Your task to perform on an android device: delete location history Image 0: 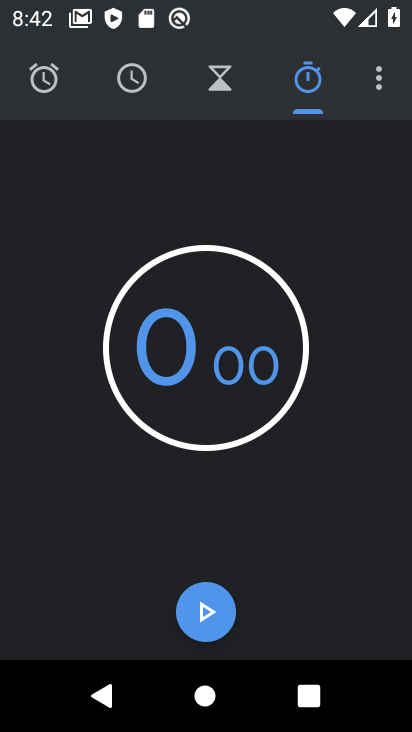
Step 0: press home button
Your task to perform on an android device: delete location history Image 1: 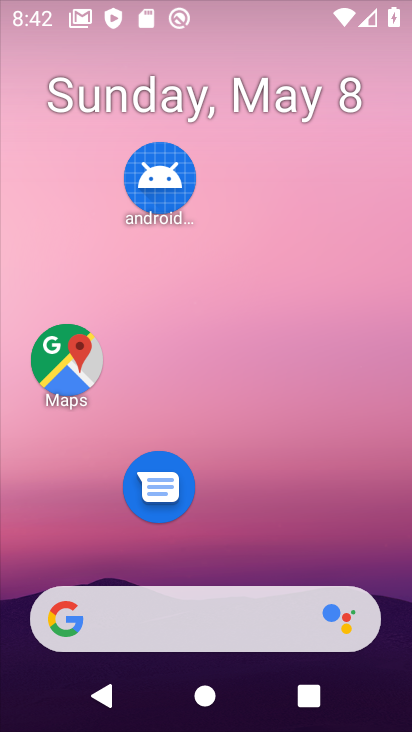
Step 1: drag from (342, 532) to (336, 75)
Your task to perform on an android device: delete location history Image 2: 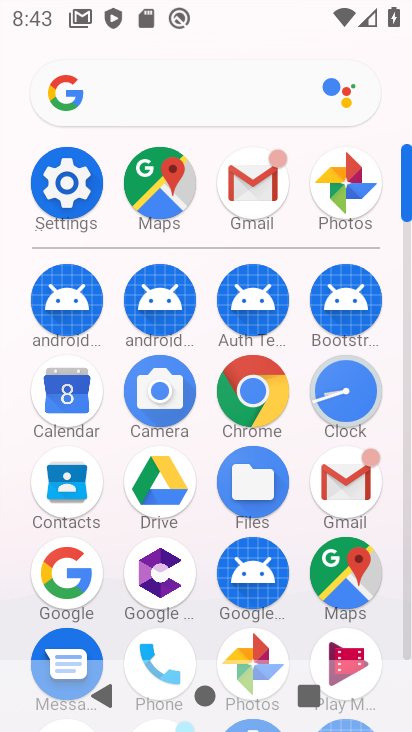
Step 2: click (79, 197)
Your task to perform on an android device: delete location history Image 3: 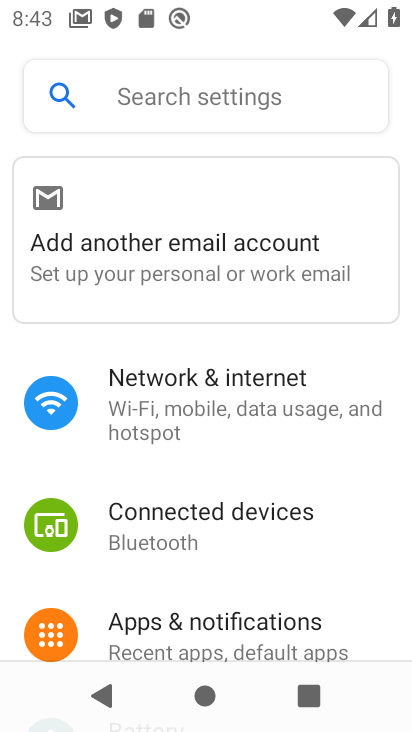
Step 3: drag from (174, 653) to (220, 436)
Your task to perform on an android device: delete location history Image 4: 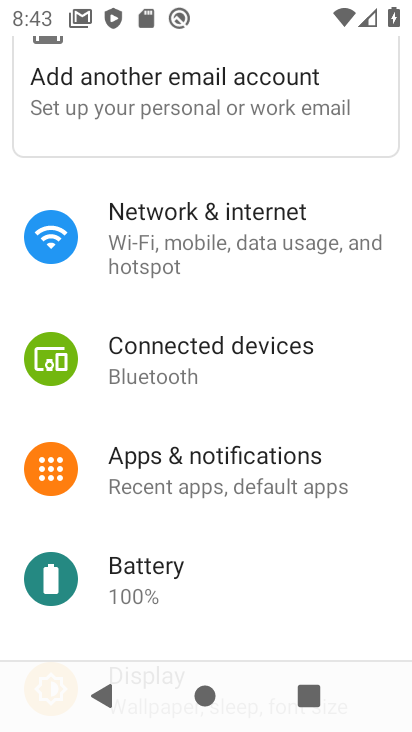
Step 4: drag from (199, 634) to (244, 249)
Your task to perform on an android device: delete location history Image 5: 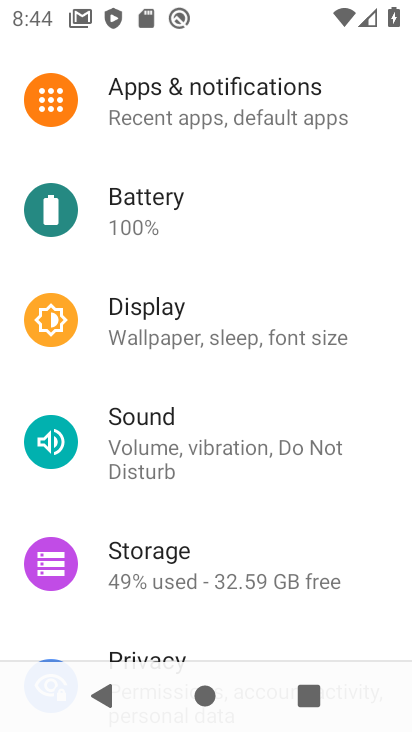
Step 5: drag from (306, 588) to (324, 276)
Your task to perform on an android device: delete location history Image 6: 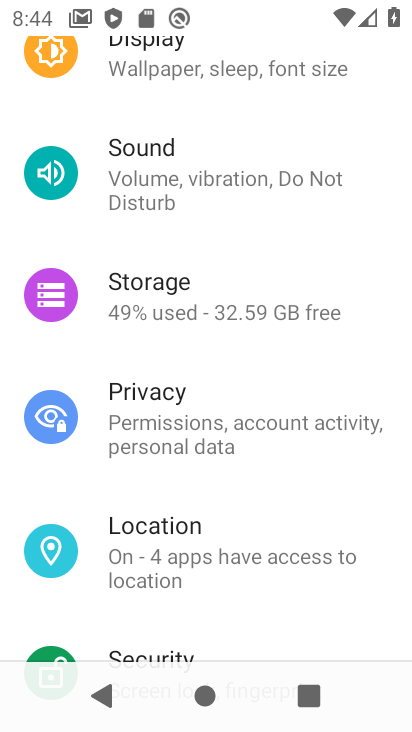
Step 6: click (227, 538)
Your task to perform on an android device: delete location history Image 7: 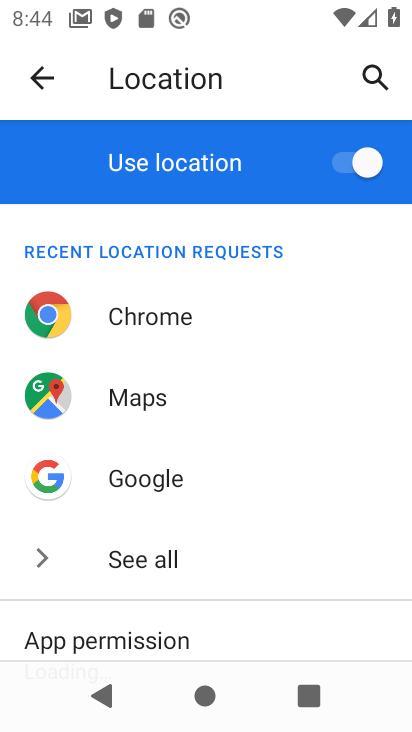
Step 7: drag from (227, 621) to (276, 251)
Your task to perform on an android device: delete location history Image 8: 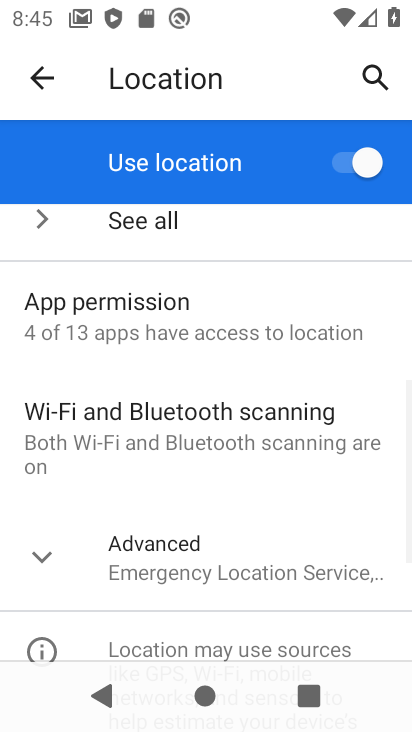
Step 8: click (218, 553)
Your task to perform on an android device: delete location history Image 9: 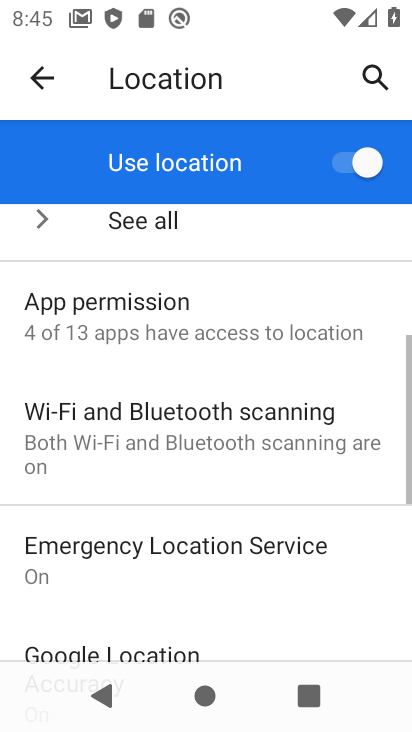
Step 9: drag from (242, 572) to (257, 304)
Your task to perform on an android device: delete location history Image 10: 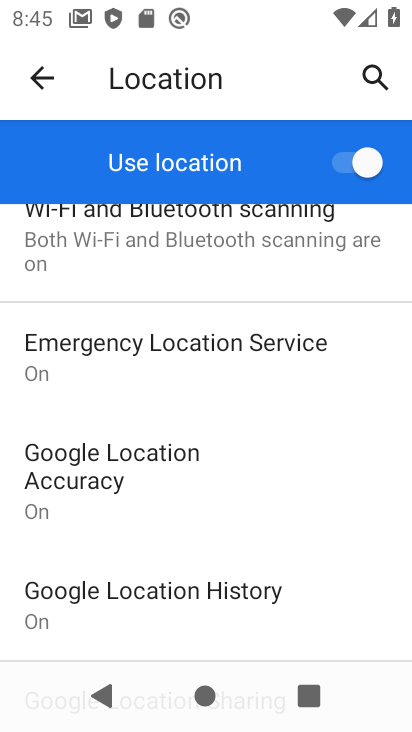
Step 10: click (178, 627)
Your task to perform on an android device: delete location history Image 11: 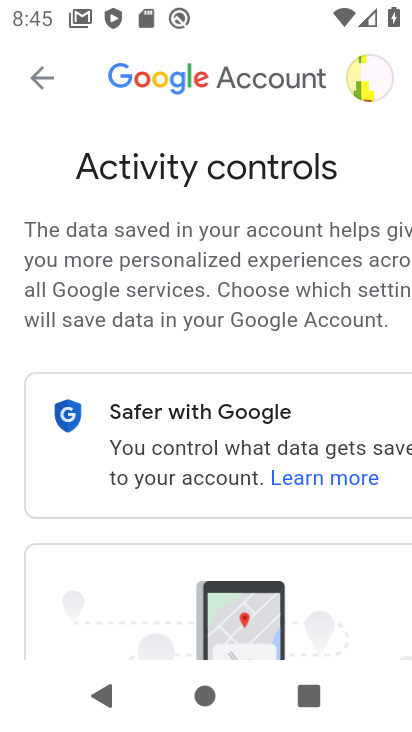
Step 11: drag from (236, 502) to (309, 173)
Your task to perform on an android device: delete location history Image 12: 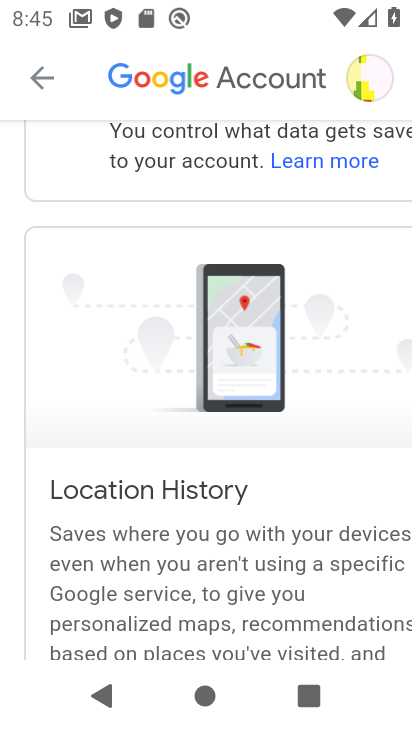
Step 12: drag from (263, 583) to (272, 355)
Your task to perform on an android device: delete location history Image 13: 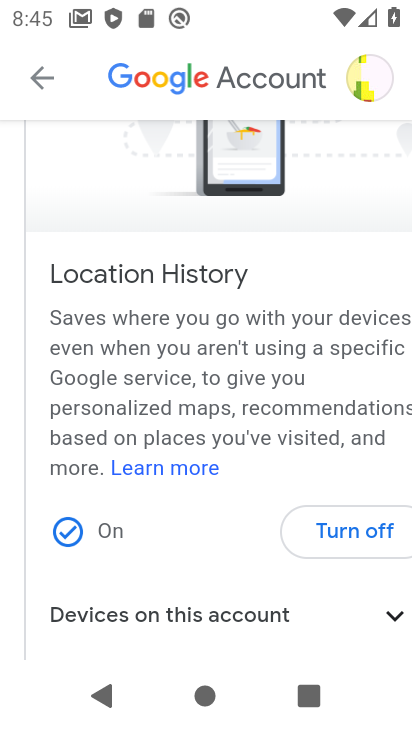
Step 13: drag from (145, 625) to (181, 400)
Your task to perform on an android device: delete location history Image 14: 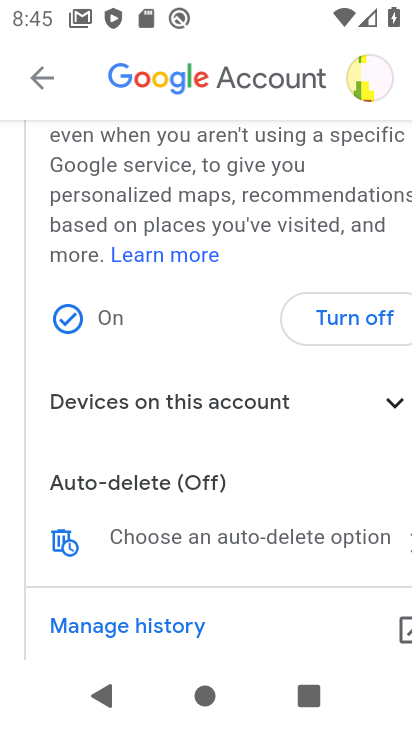
Step 14: click (382, 410)
Your task to perform on an android device: delete location history Image 15: 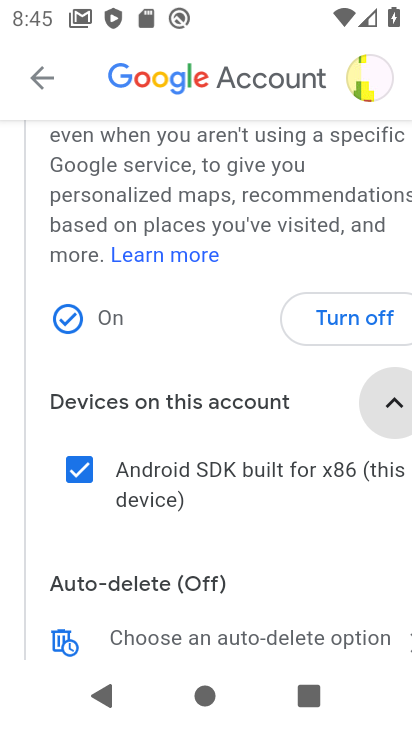
Step 15: click (184, 580)
Your task to perform on an android device: delete location history Image 16: 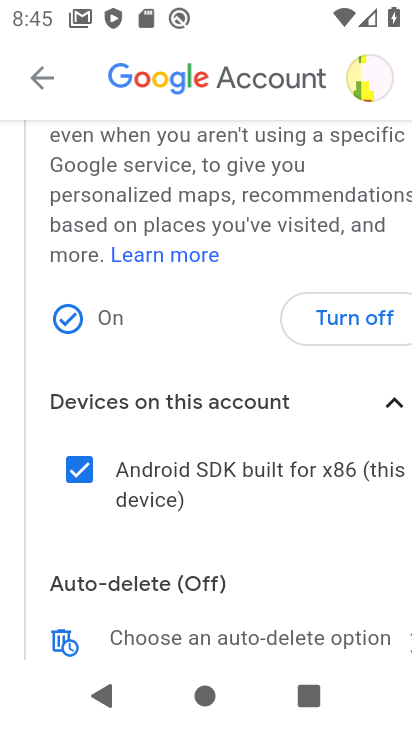
Step 16: click (228, 637)
Your task to perform on an android device: delete location history Image 17: 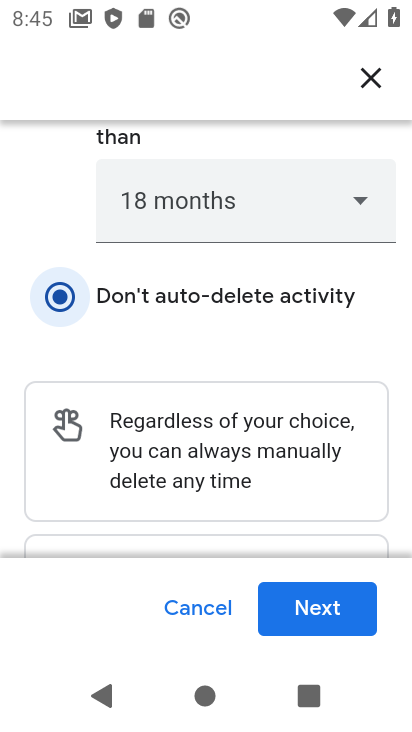
Step 17: click (288, 585)
Your task to perform on an android device: delete location history Image 18: 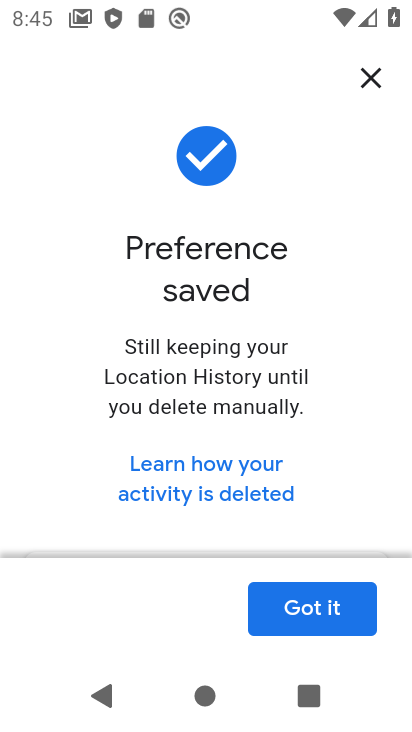
Step 18: click (286, 611)
Your task to perform on an android device: delete location history Image 19: 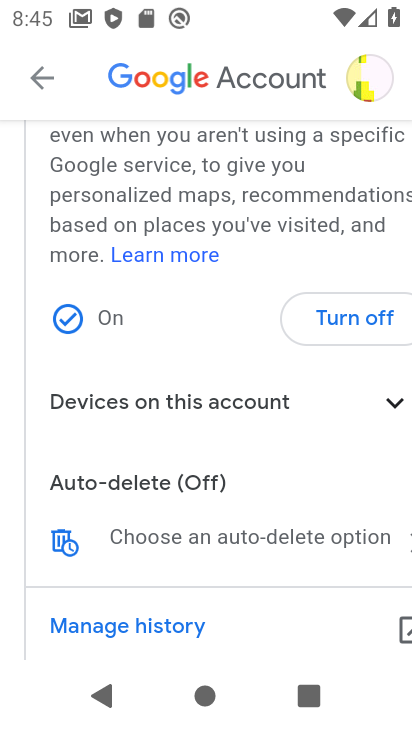
Step 19: task complete